Your task to perform on an android device: toggle location history Image 0: 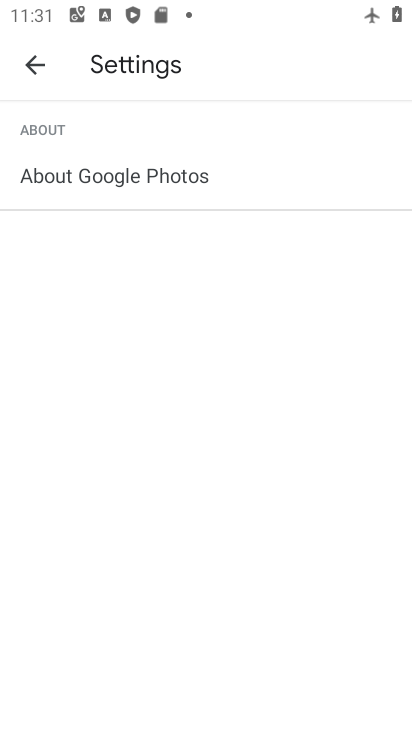
Step 0: press home button
Your task to perform on an android device: toggle location history Image 1: 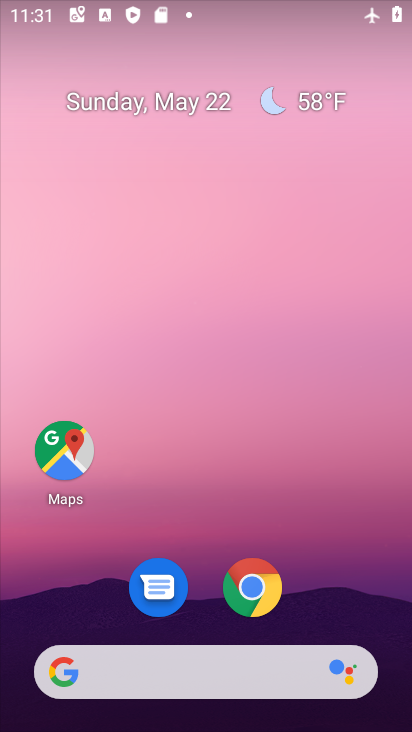
Step 1: drag from (192, 427) to (169, 14)
Your task to perform on an android device: toggle location history Image 2: 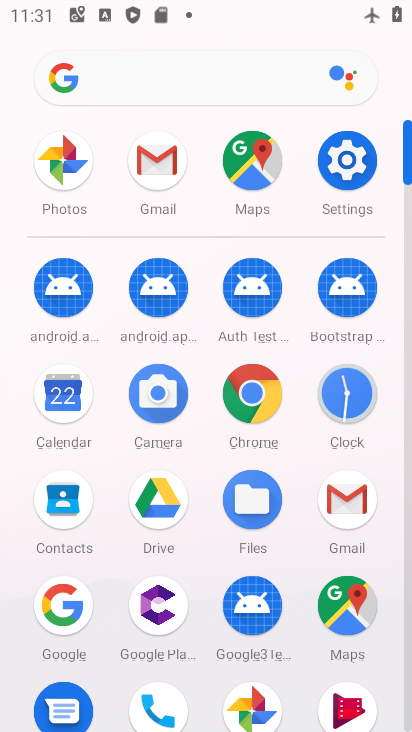
Step 2: click (346, 157)
Your task to perform on an android device: toggle location history Image 3: 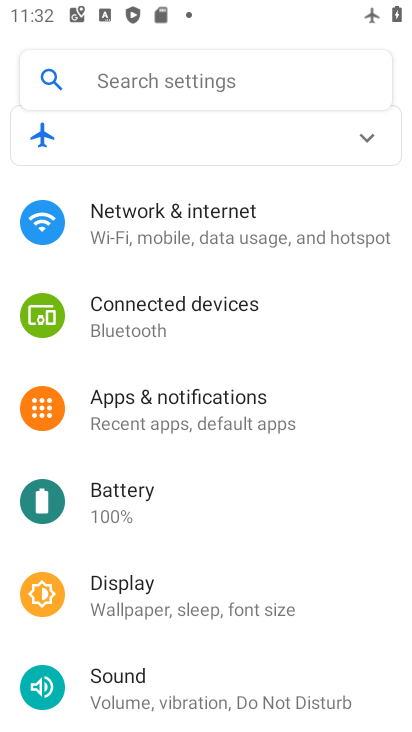
Step 3: drag from (232, 481) to (274, 198)
Your task to perform on an android device: toggle location history Image 4: 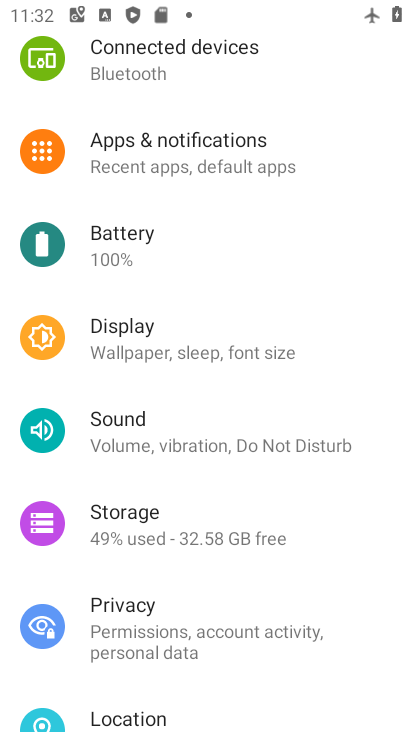
Step 4: drag from (202, 483) to (234, 105)
Your task to perform on an android device: toggle location history Image 5: 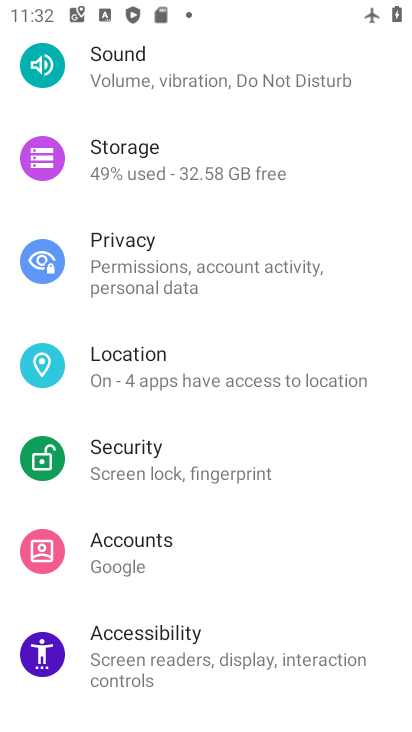
Step 5: click (196, 356)
Your task to perform on an android device: toggle location history Image 6: 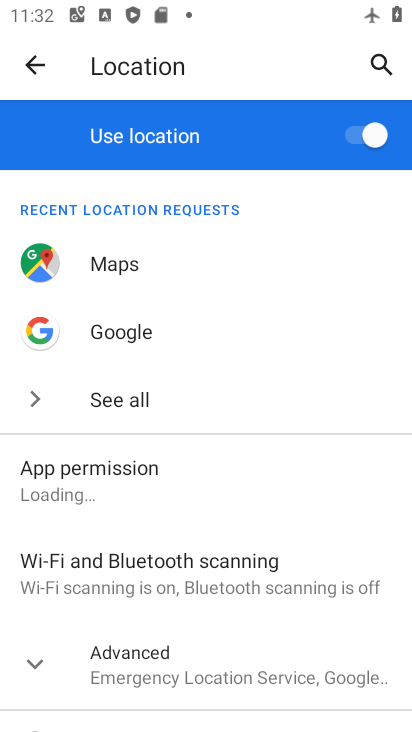
Step 6: click (29, 663)
Your task to perform on an android device: toggle location history Image 7: 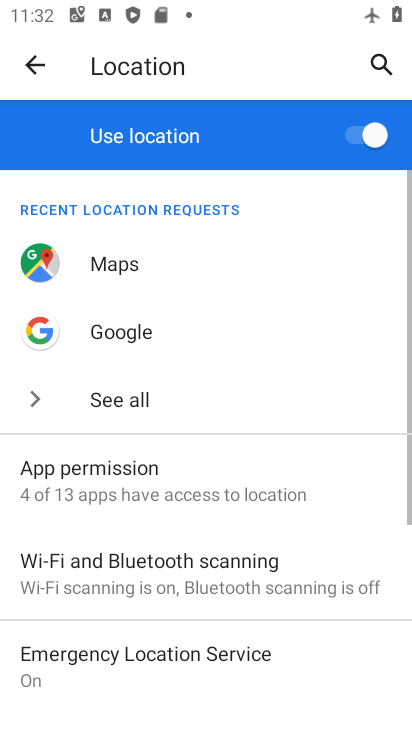
Step 7: drag from (201, 476) to (189, 0)
Your task to perform on an android device: toggle location history Image 8: 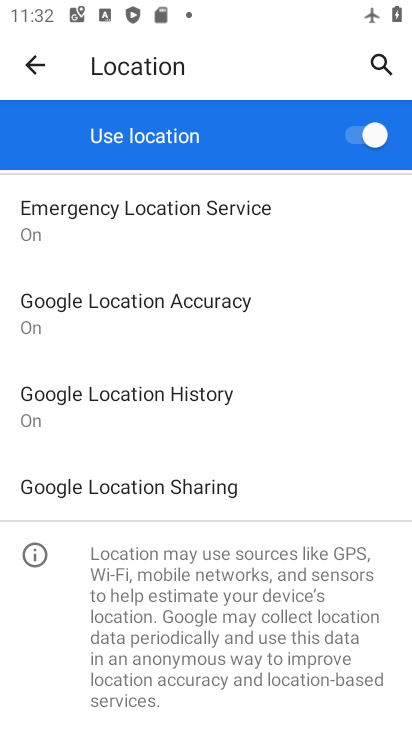
Step 8: click (193, 399)
Your task to perform on an android device: toggle location history Image 9: 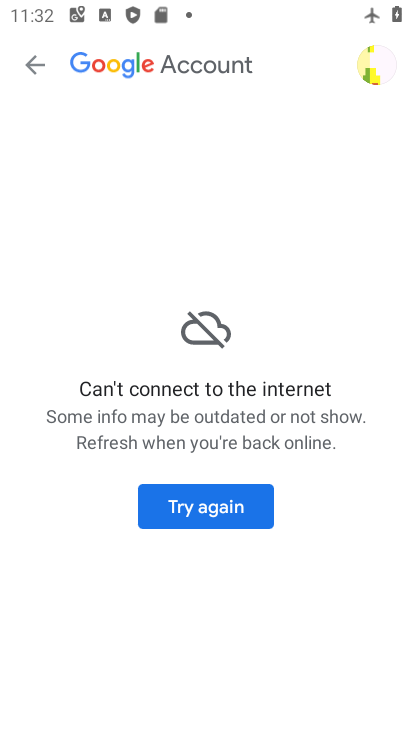
Step 9: task complete